Your task to perform on an android device: Go to Wikipedia Image 0: 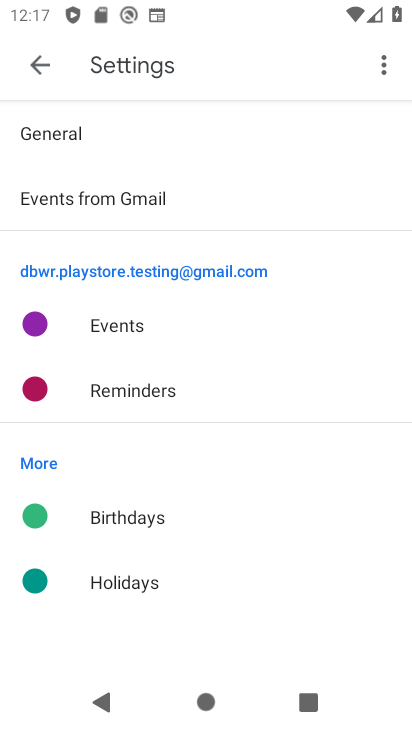
Step 0: press home button
Your task to perform on an android device: Go to Wikipedia Image 1: 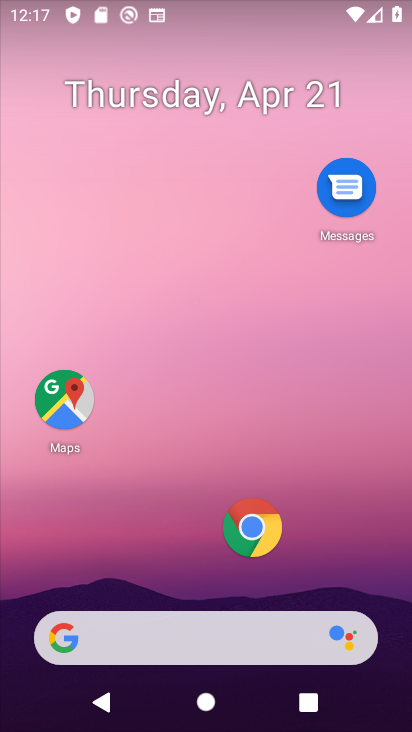
Step 1: click (253, 528)
Your task to perform on an android device: Go to Wikipedia Image 2: 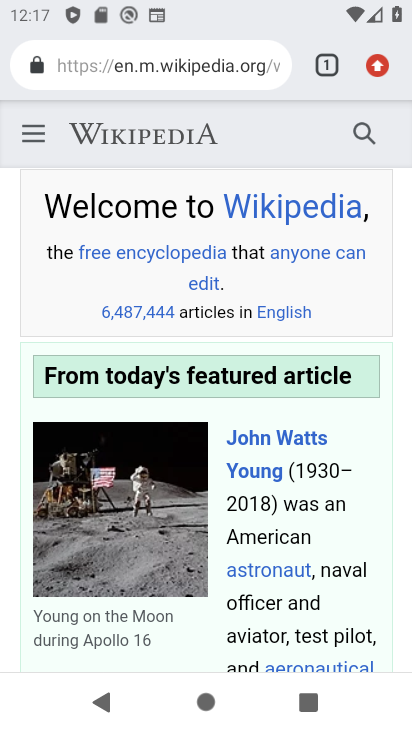
Step 2: task complete